Your task to perform on an android device: turn off improve location accuracy Image 0: 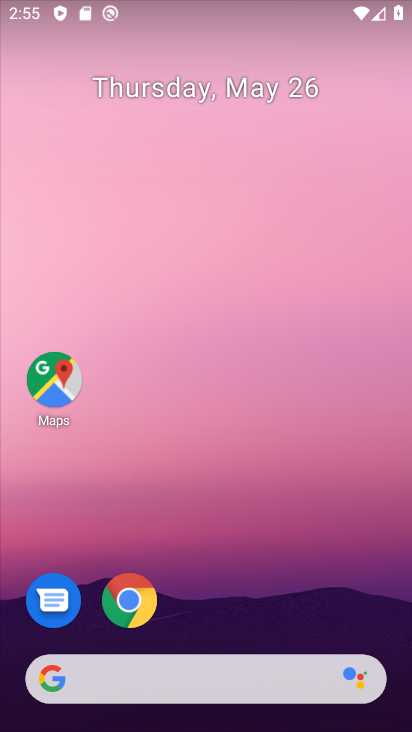
Step 0: press home button
Your task to perform on an android device: turn off improve location accuracy Image 1: 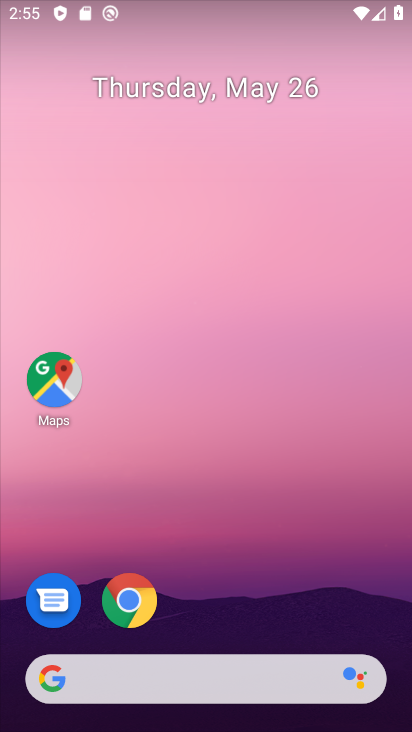
Step 1: drag from (253, 634) to (251, 294)
Your task to perform on an android device: turn off improve location accuracy Image 2: 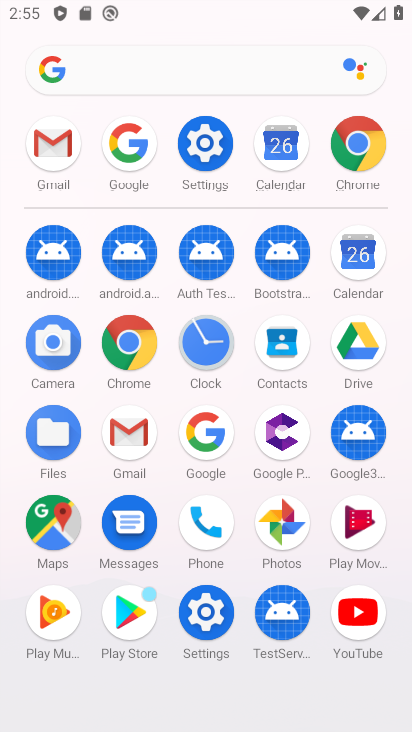
Step 2: click (202, 144)
Your task to perform on an android device: turn off improve location accuracy Image 3: 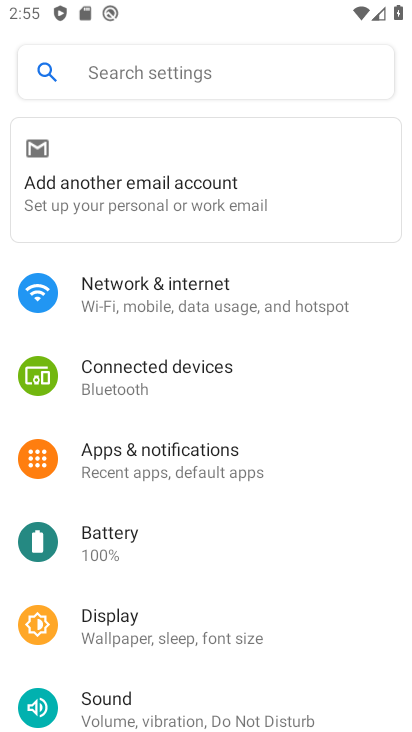
Step 3: drag from (195, 678) to (198, 304)
Your task to perform on an android device: turn off improve location accuracy Image 4: 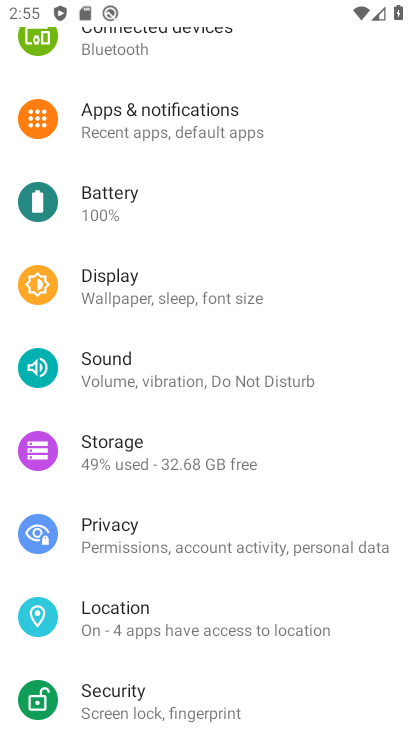
Step 4: click (212, 624)
Your task to perform on an android device: turn off improve location accuracy Image 5: 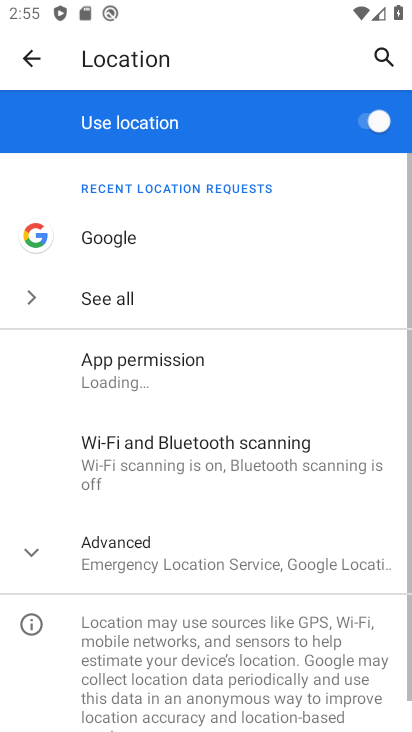
Step 5: click (201, 561)
Your task to perform on an android device: turn off improve location accuracy Image 6: 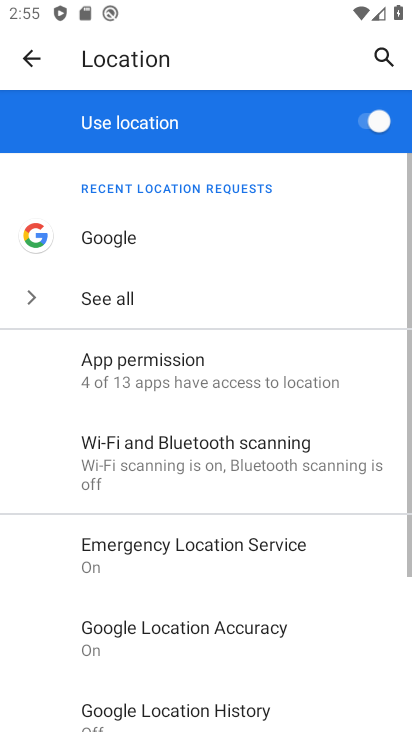
Step 6: drag from (212, 625) to (184, 295)
Your task to perform on an android device: turn off improve location accuracy Image 7: 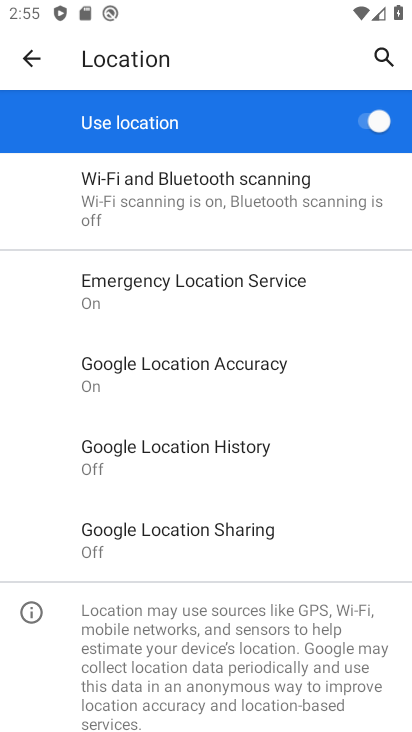
Step 7: click (204, 373)
Your task to perform on an android device: turn off improve location accuracy Image 8: 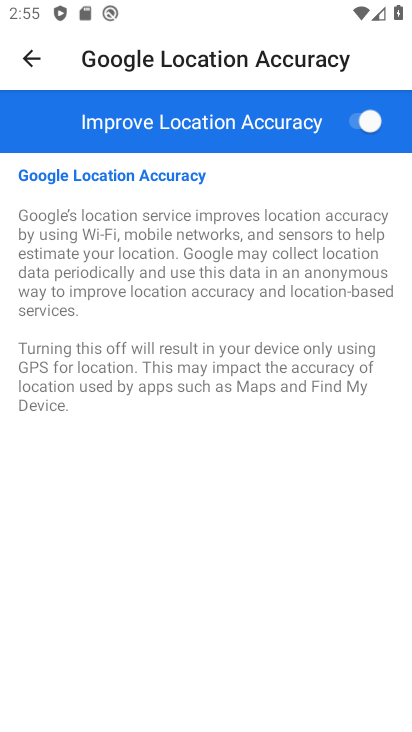
Step 8: click (364, 129)
Your task to perform on an android device: turn off improve location accuracy Image 9: 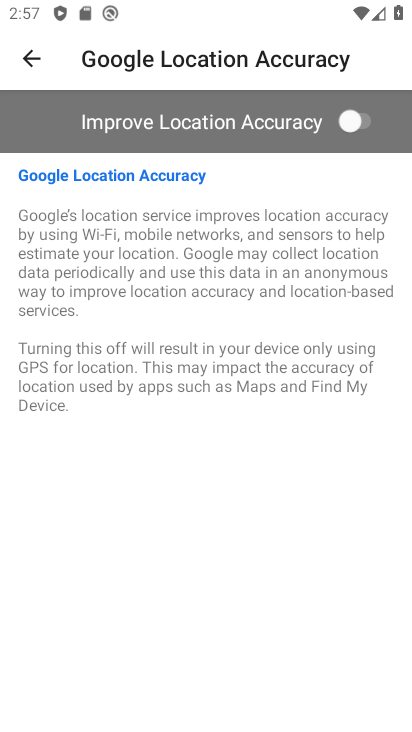
Step 9: task complete